Your task to perform on an android device: Search for Italian restaurants on Maps Image 0: 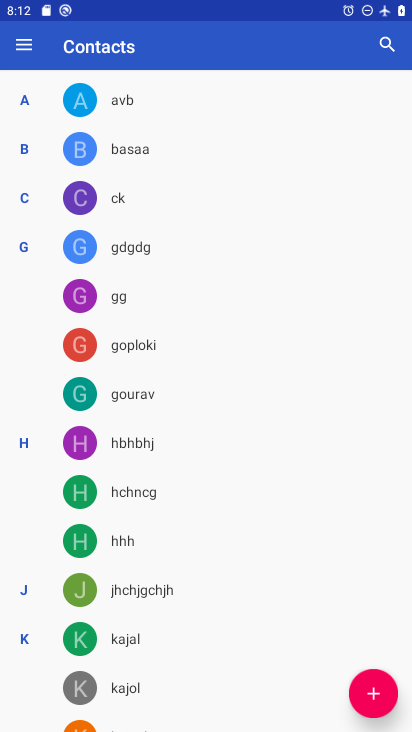
Step 0: press home button
Your task to perform on an android device: Search for Italian restaurants on Maps Image 1: 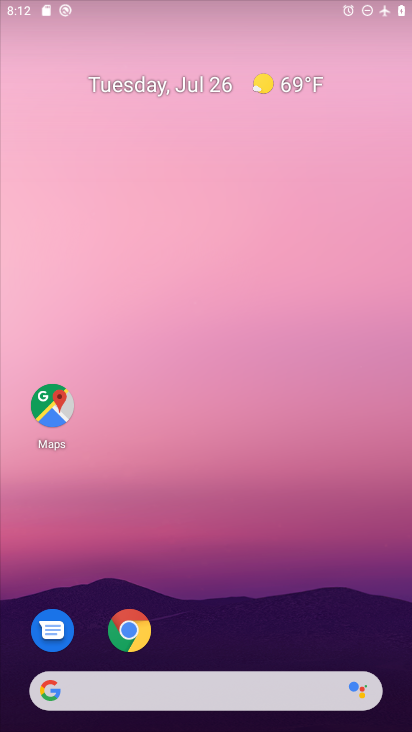
Step 1: drag from (240, 623) to (193, 138)
Your task to perform on an android device: Search for Italian restaurants on Maps Image 2: 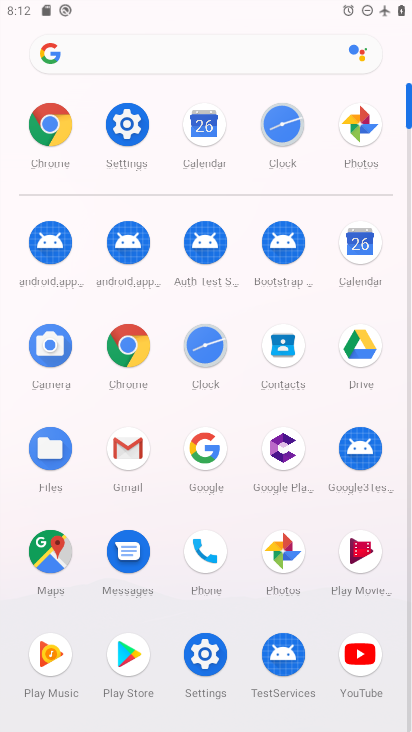
Step 2: click (66, 550)
Your task to perform on an android device: Search for Italian restaurants on Maps Image 3: 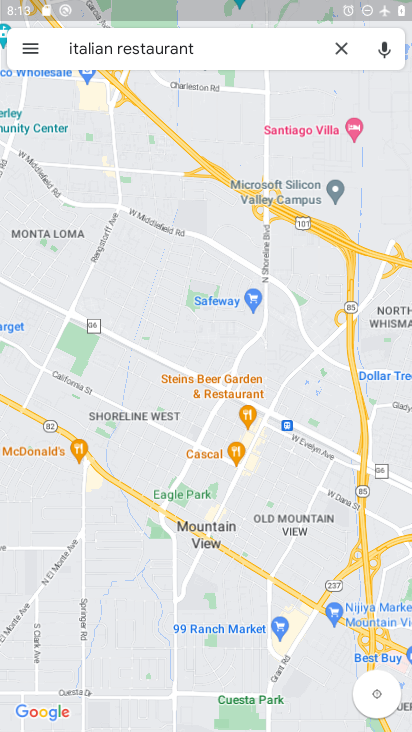
Step 3: task complete